Your task to perform on an android device: set the stopwatch Image 0: 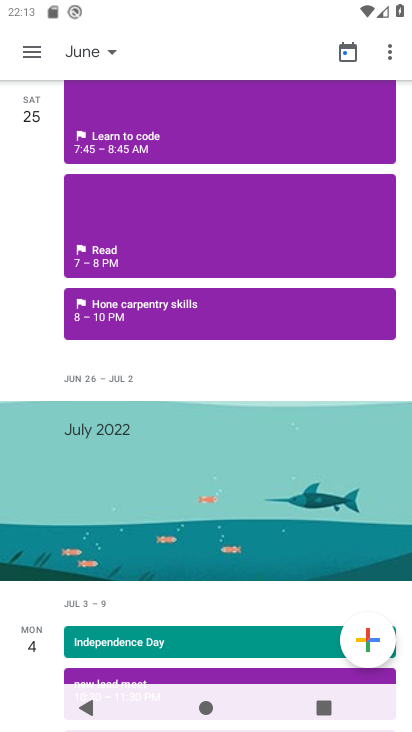
Step 0: press home button
Your task to perform on an android device: set the stopwatch Image 1: 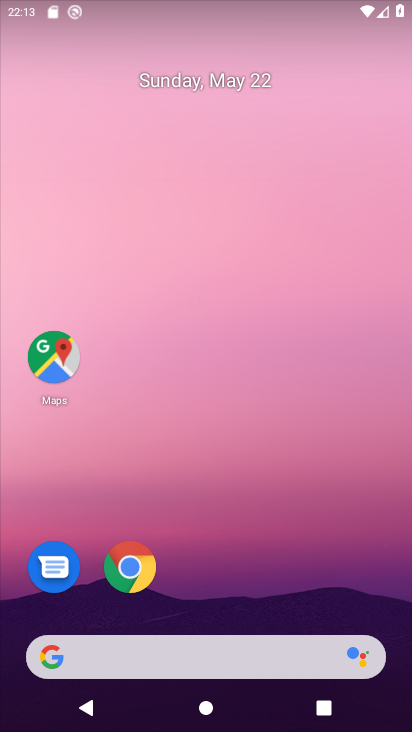
Step 1: drag from (218, 606) to (214, 69)
Your task to perform on an android device: set the stopwatch Image 2: 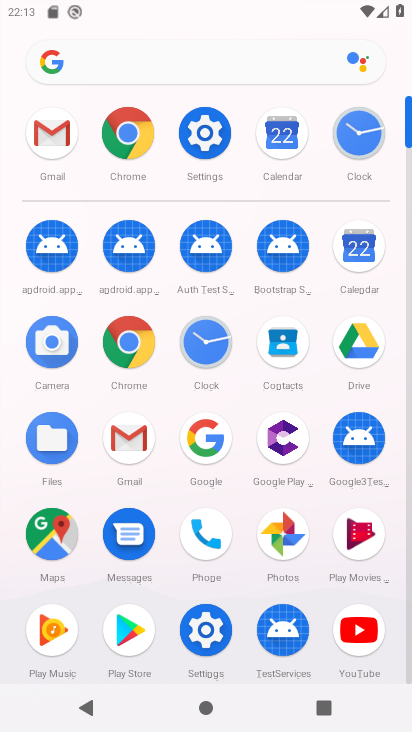
Step 2: click (361, 130)
Your task to perform on an android device: set the stopwatch Image 3: 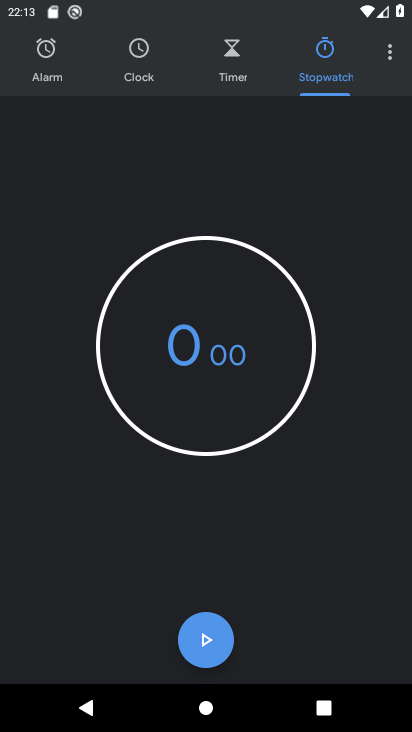
Step 3: click (224, 655)
Your task to perform on an android device: set the stopwatch Image 4: 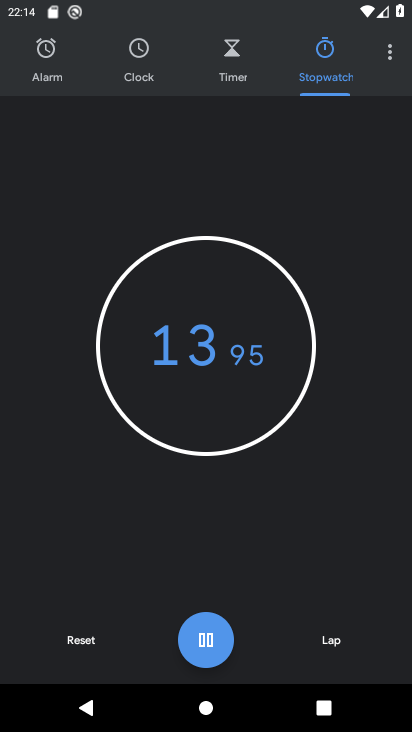
Step 4: task complete